Your task to perform on an android device: Go to CNN.com Image 0: 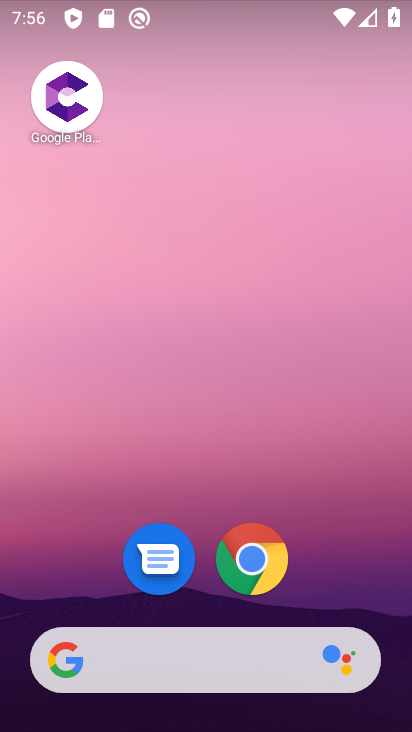
Step 0: click (268, 551)
Your task to perform on an android device: Go to CNN.com Image 1: 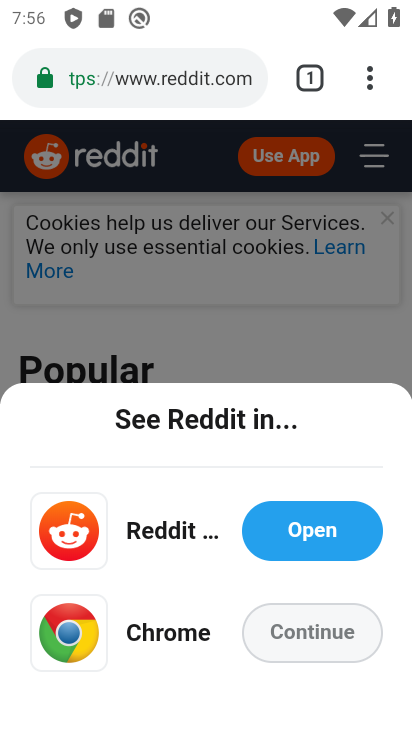
Step 1: click (221, 84)
Your task to perform on an android device: Go to CNN.com Image 2: 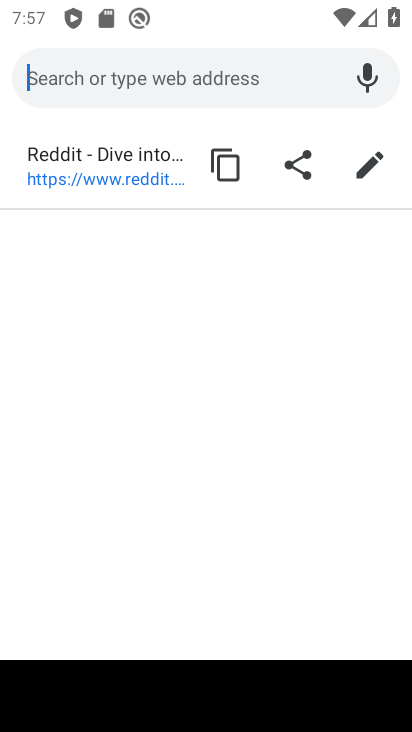
Step 2: type "cnn.com"
Your task to perform on an android device: Go to CNN.com Image 3: 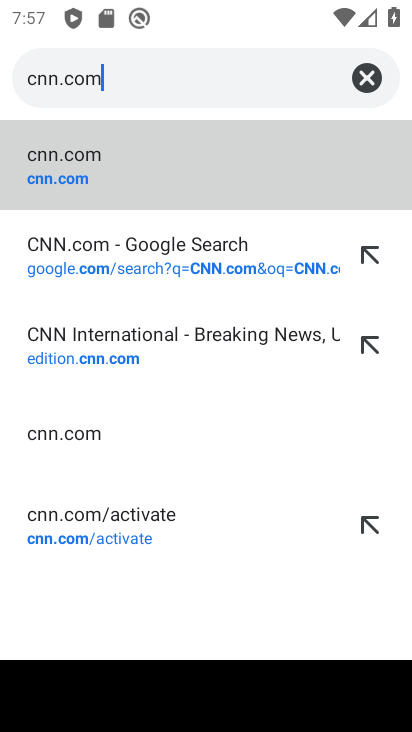
Step 3: click (160, 172)
Your task to perform on an android device: Go to CNN.com Image 4: 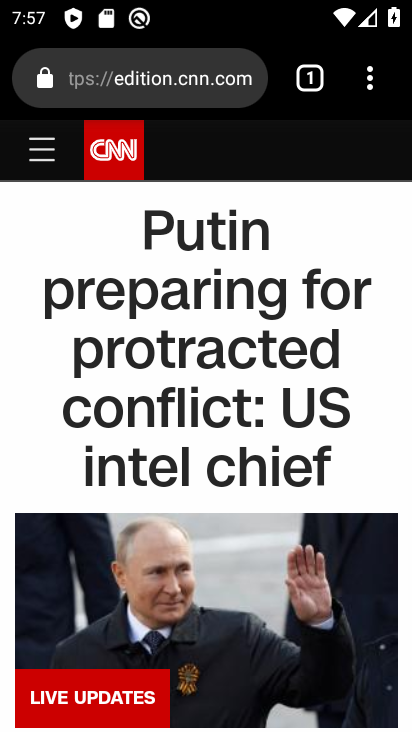
Step 4: task complete